Your task to perform on an android device: toggle wifi Image 0: 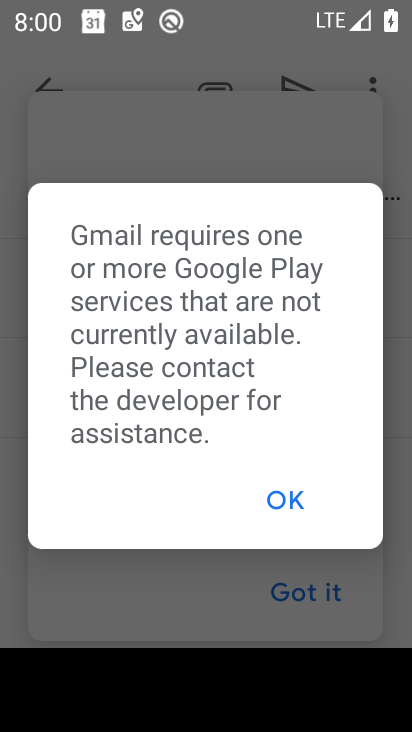
Step 0: press home button
Your task to perform on an android device: toggle wifi Image 1: 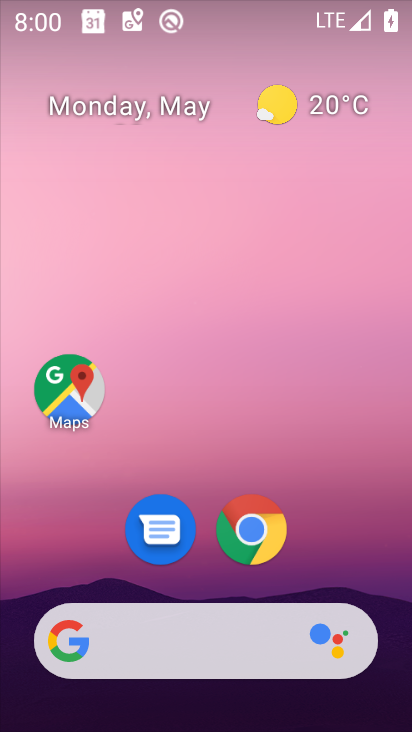
Step 1: task complete